Your task to perform on an android device: Open Amazon Image 0: 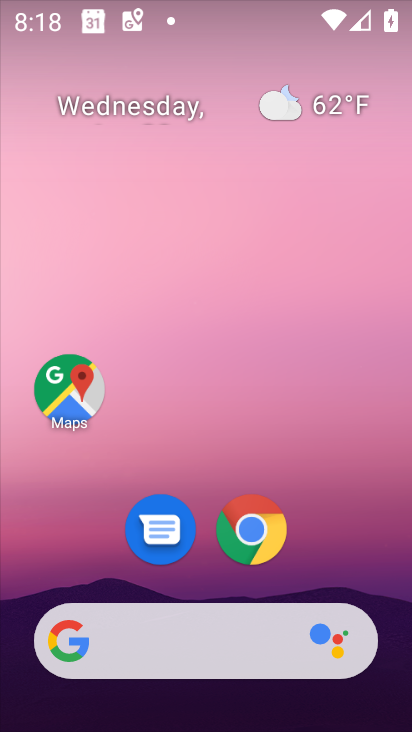
Step 0: drag from (193, 558) to (280, 114)
Your task to perform on an android device: Open Amazon Image 1: 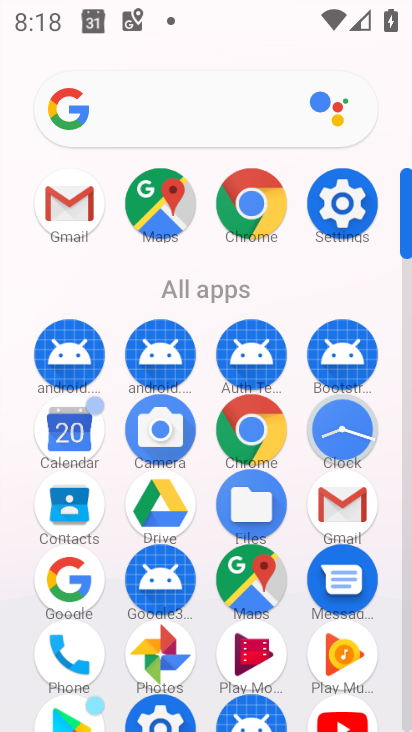
Step 1: click (245, 213)
Your task to perform on an android device: Open Amazon Image 2: 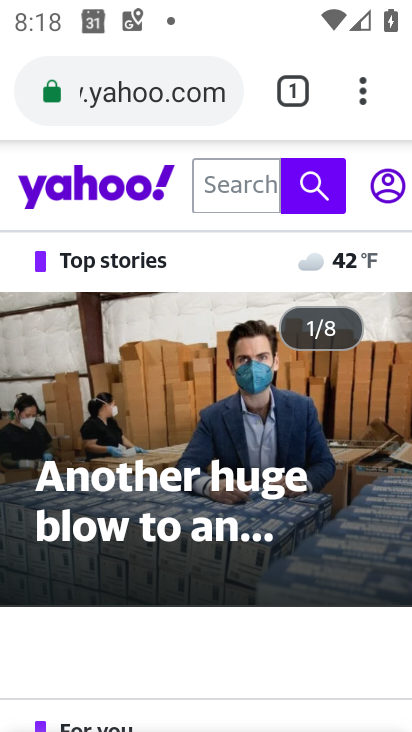
Step 2: click (174, 95)
Your task to perform on an android device: Open Amazon Image 3: 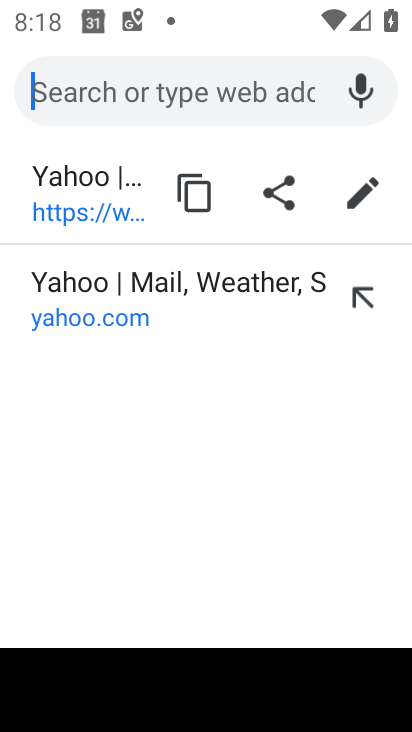
Step 3: type "amazon"
Your task to perform on an android device: Open Amazon Image 4: 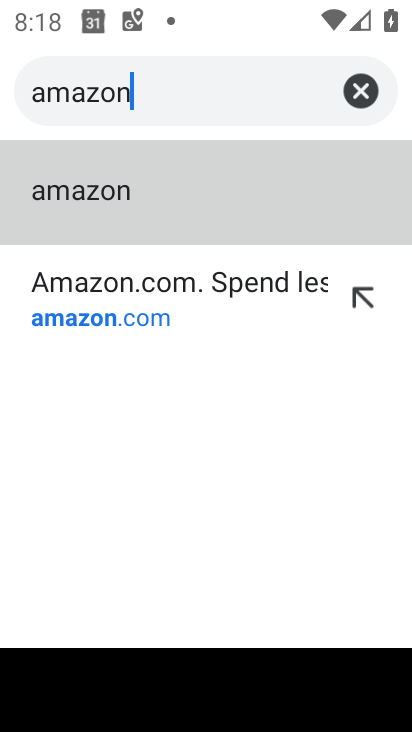
Step 4: click (174, 208)
Your task to perform on an android device: Open Amazon Image 5: 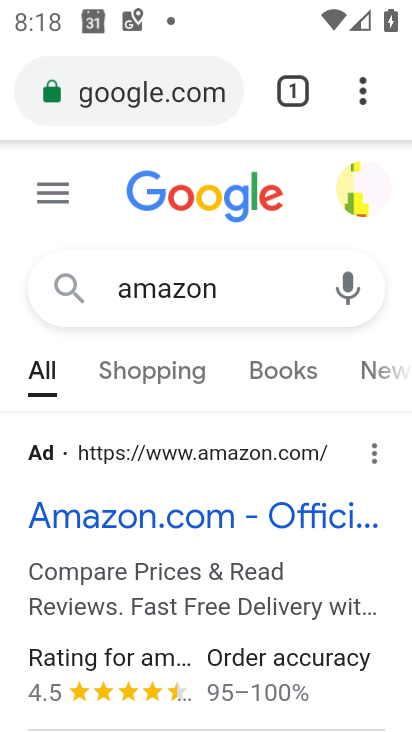
Step 5: task complete